Your task to perform on an android device: toggle sleep mode Image 0: 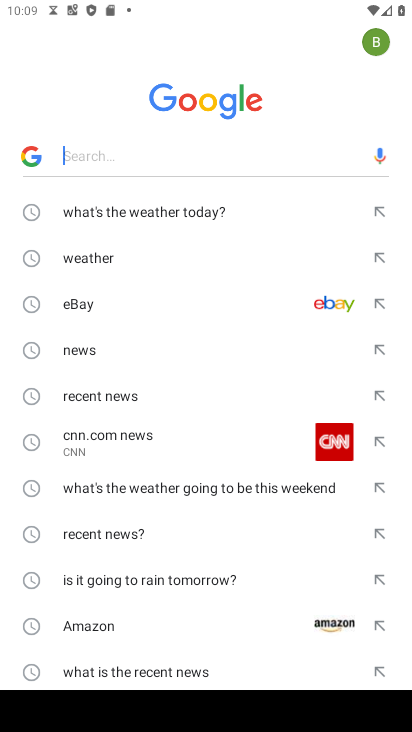
Step 0: press home button
Your task to perform on an android device: toggle sleep mode Image 1: 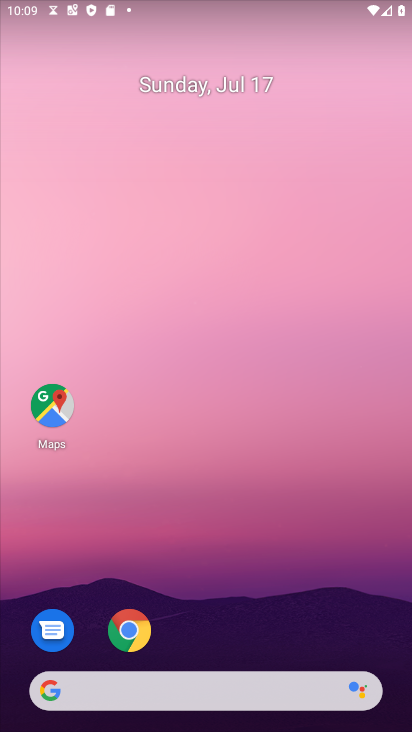
Step 1: drag from (235, 694) to (272, 0)
Your task to perform on an android device: toggle sleep mode Image 2: 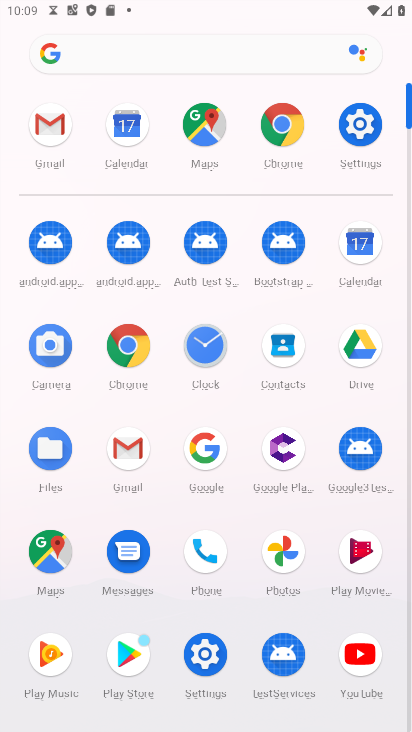
Step 2: click (372, 116)
Your task to perform on an android device: toggle sleep mode Image 3: 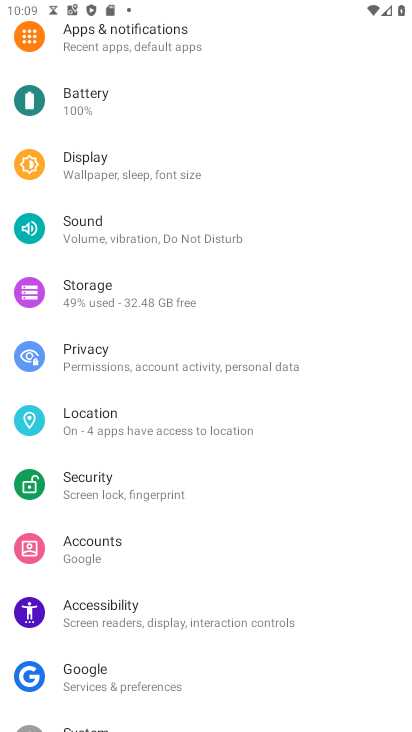
Step 3: drag from (187, 160) to (215, 414)
Your task to perform on an android device: toggle sleep mode Image 4: 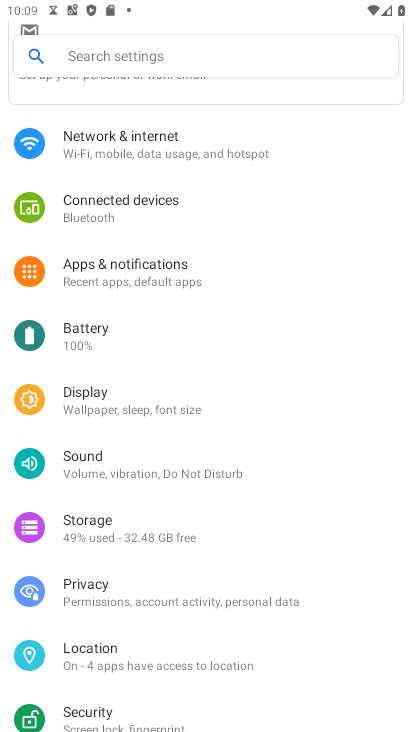
Step 4: click (193, 397)
Your task to perform on an android device: toggle sleep mode Image 5: 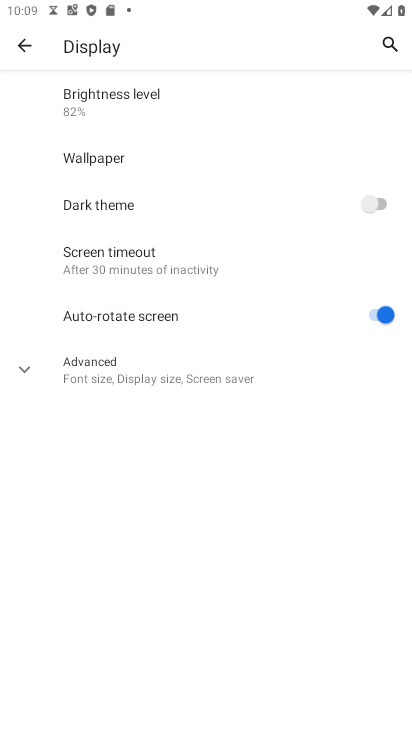
Step 5: task complete